Your task to perform on an android device: What is the recent news? Image 0: 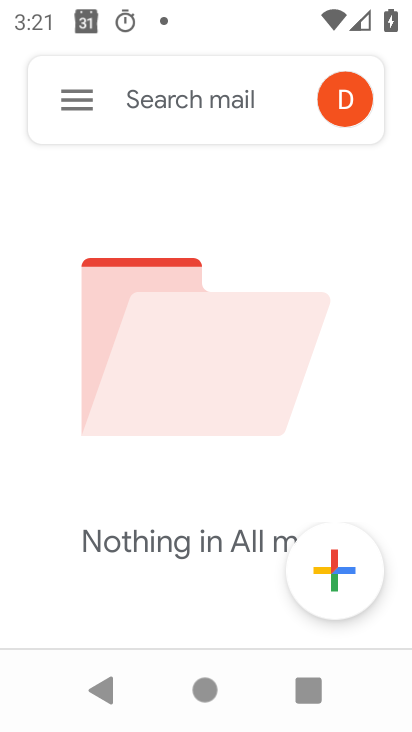
Step 0: press home button
Your task to perform on an android device: What is the recent news? Image 1: 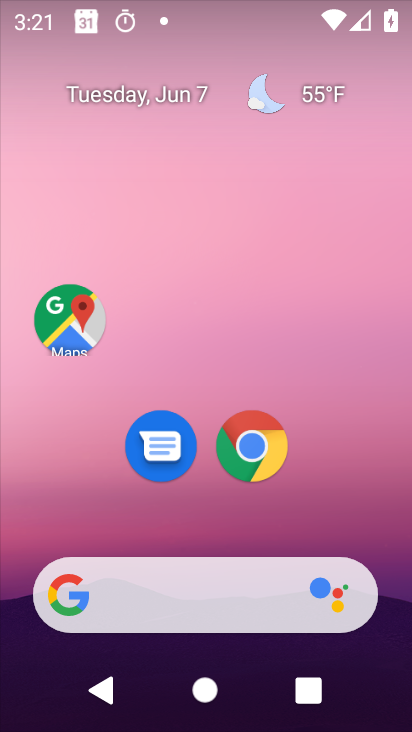
Step 1: click (154, 607)
Your task to perform on an android device: What is the recent news? Image 2: 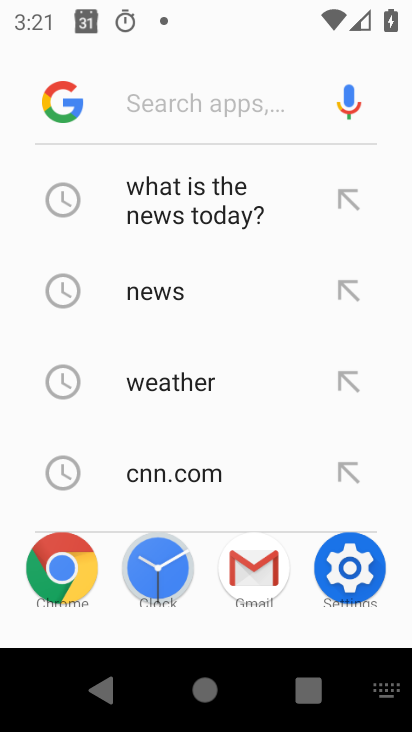
Step 2: type "reent news"
Your task to perform on an android device: What is the recent news? Image 3: 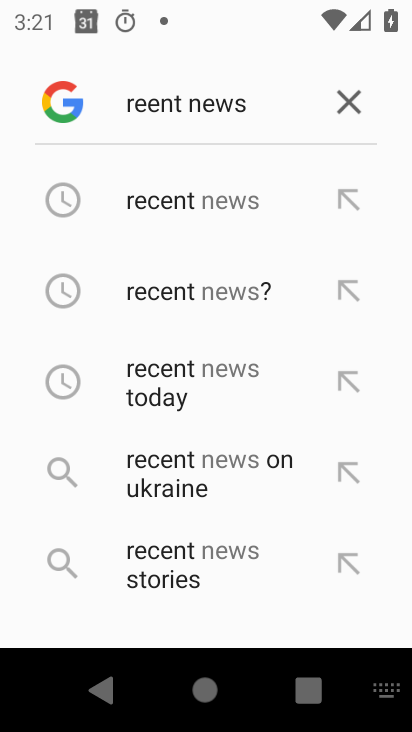
Step 3: click (195, 211)
Your task to perform on an android device: What is the recent news? Image 4: 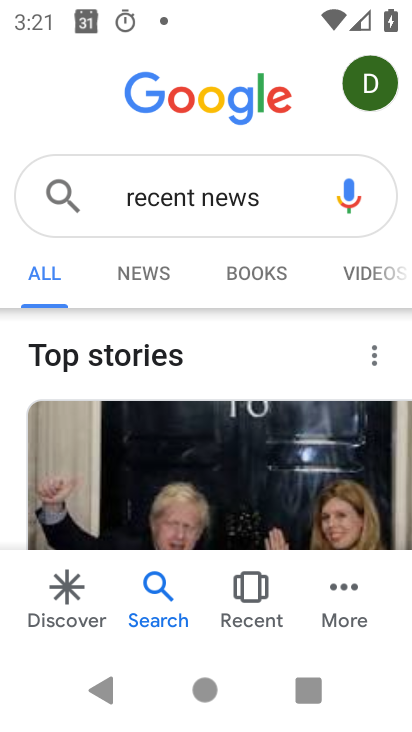
Step 4: task complete